Your task to perform on an android device: move a message to another label in the gmail app Image 0: 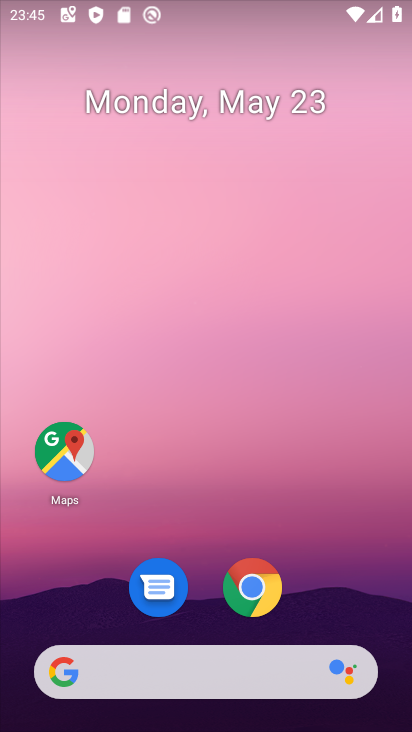
Step 0: drag from (360, 618) to (283, 270)
Your task to perform on an android device: move a message to another label in the gmail app Image 1: 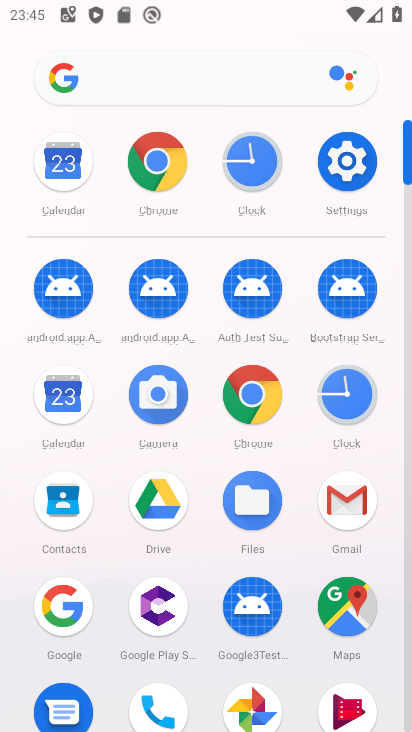
Step 1: click (354, 520)
Your task to perform on an android device: move a message to another label in the gmail app Image 2: 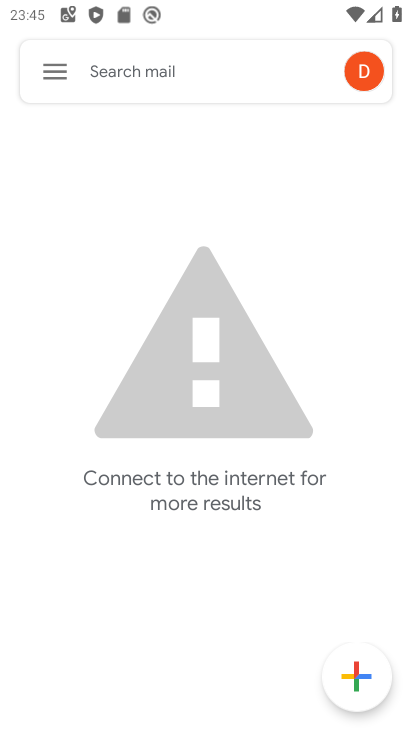
Step 2: click (55, 61)
Your task to perform on an android device: move a message to another label in the gmail app Image 3: 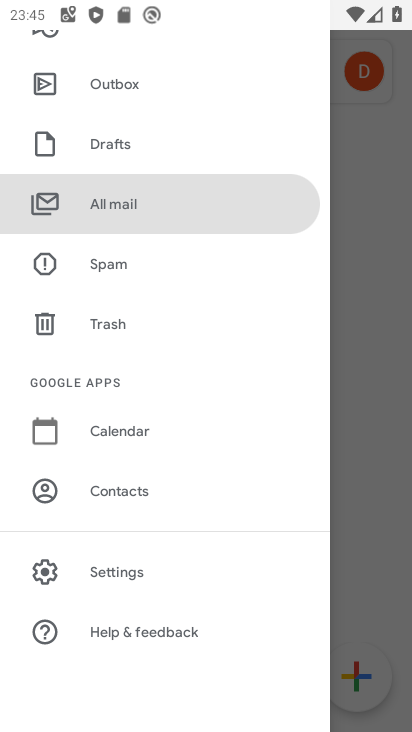
Step 3: click (126, 212)
Your task to perform on an android device: move a message to another label in the gmail app Image 4: 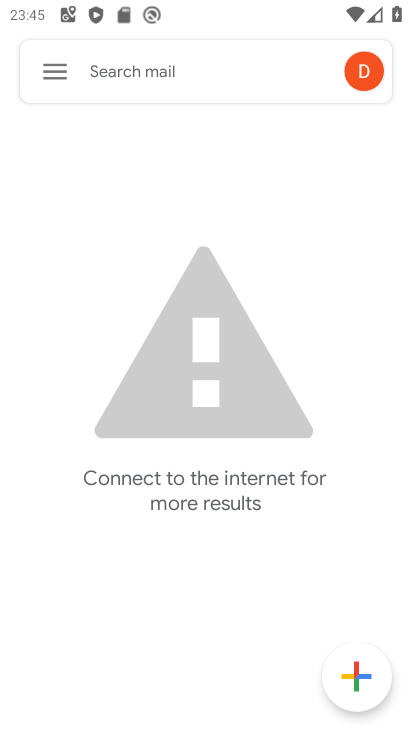
Step 4: task complete